Your task to perform on an android device: Open privacy settings Image 0: 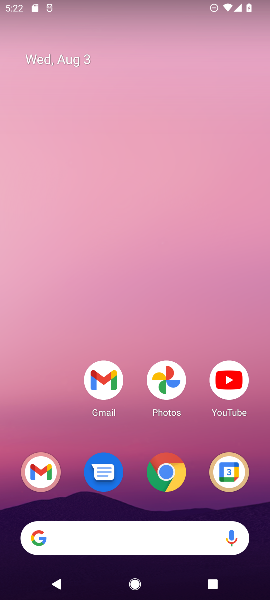
Step 0: drag from (198, 484) to (52, 36)
Your task to perform on an android device: Open privacy settings Image 1: 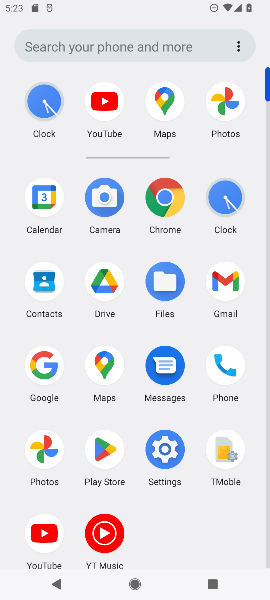
Step 1: click (166, 443)
Your task to perform on an android device: Open privacy settings Image 2: 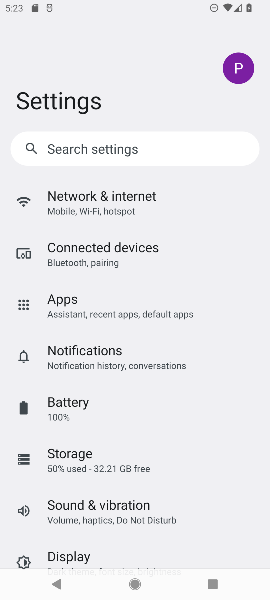
Step 2: drag from (147, 521) to (128, 124)
Your task to perform on an android device: Open privacy settings Image 3: 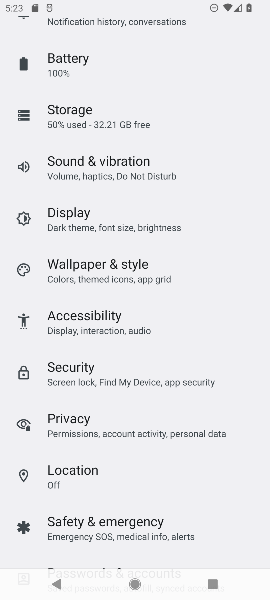
Step 3: click (169, 432)
Your task to perform on an android device: Open privacy settings Image 4: 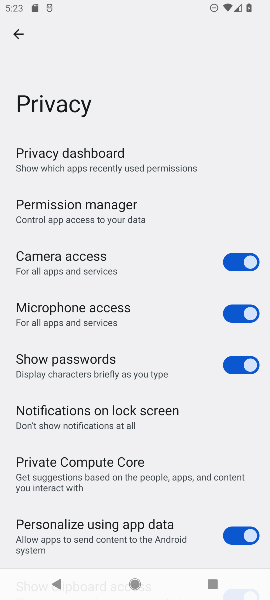
Step 4: task complete